Your task to perform on an android device: turn off priority inbox in the gmail app Image 0: 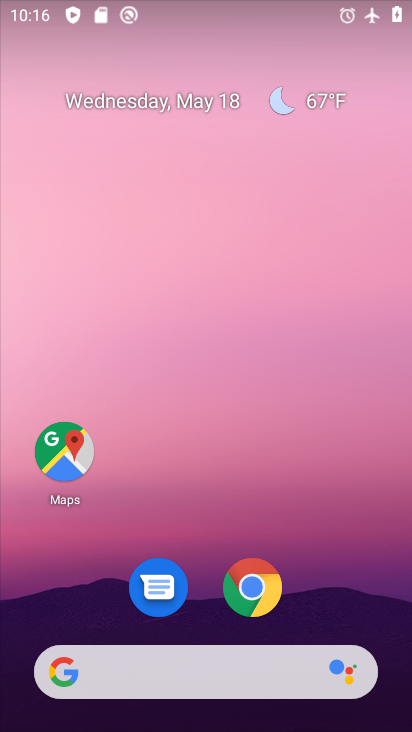
Step 0: drag from (360, 607) to (320, 314)
Your task to perform on an android device: turn off priority inbox in the gmail app Image 1: 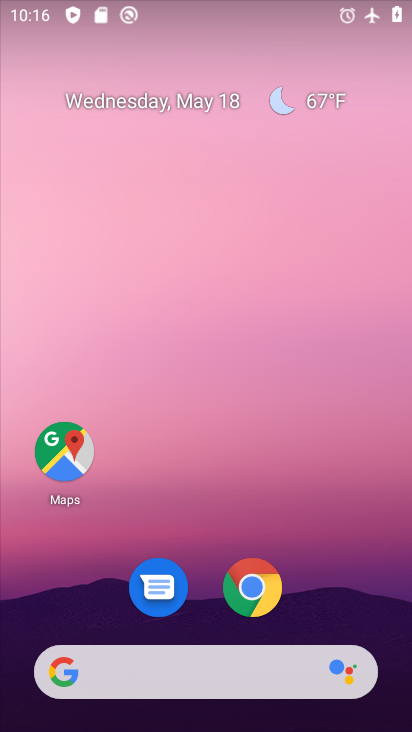
Step 1: drag from (337, 603) to (337, 160)
Your task to perform on an android device: turn off priority inbox in the gmail app Image 2: 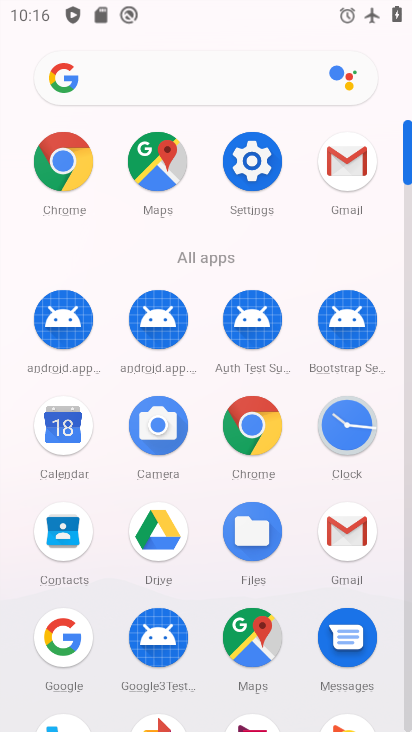
Step 2: click (348, 166)
Your task to perform on an android device: turn off priority inbox in the gmail app Image 3: 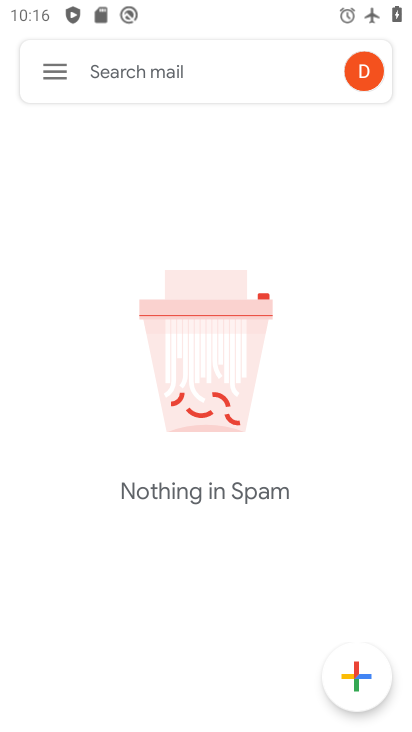
Step 3: click (52, 76)
Your task to perform on an android device: turn off priority inbox in the gmail app Image 4: 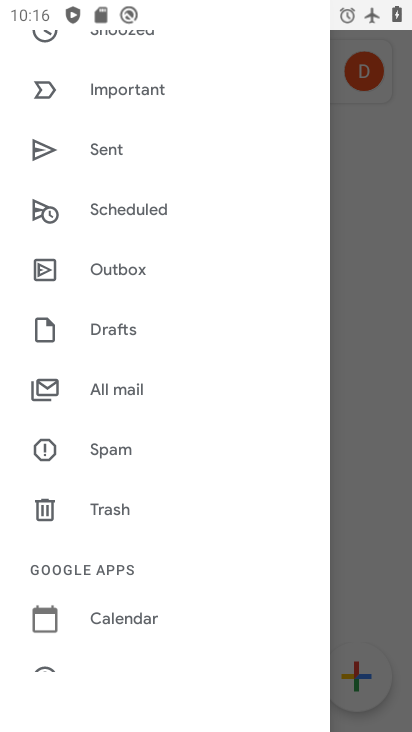
Step 4: drag from (183, 484) to (180, 255)
Your task to perform on an android device: turn off priority inbox in the gmail app Image 5: 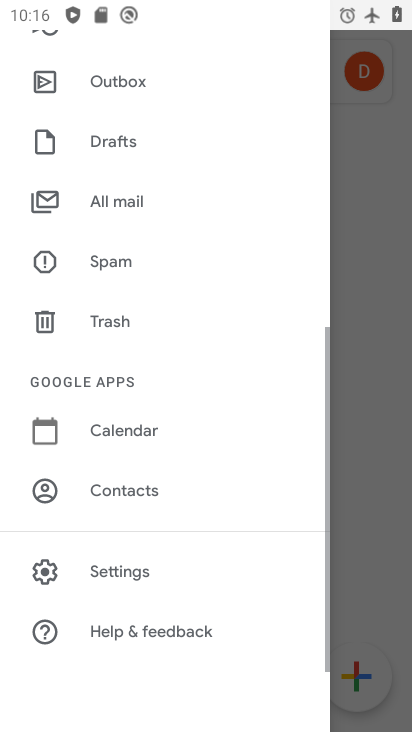
Step 5: click (98, 569)
Your task to perform on an android device: turn off priority inbox in the gmail app Image 6: 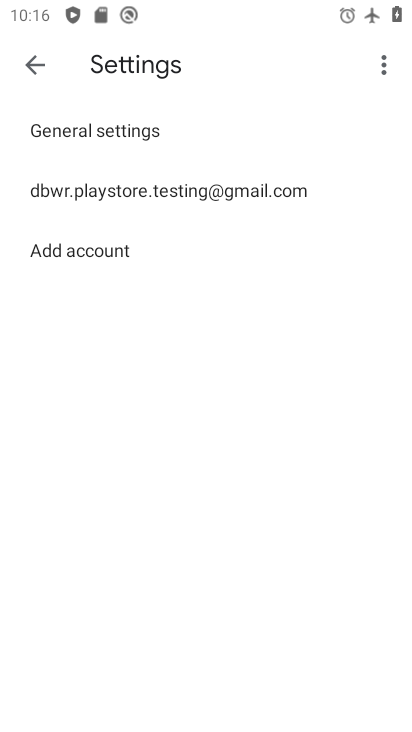
Step 6: click (387, 53)
Your task to perform on an android device: turn off priority inbox in the gmail app Image 7: 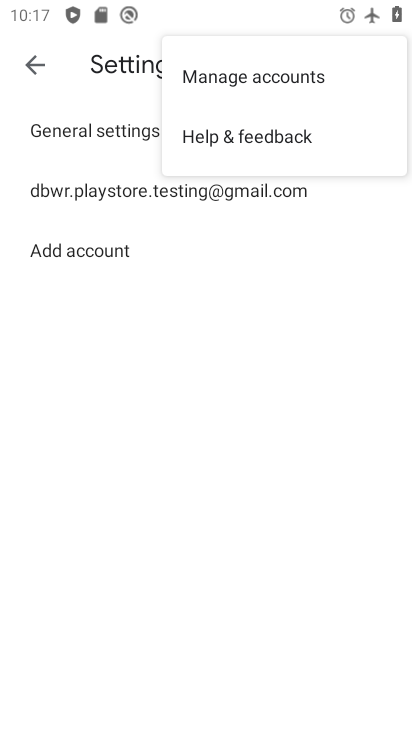
Step 7: press back button
Your task to perform on an android device: turn off priority inbox in the gmail app Image 8: 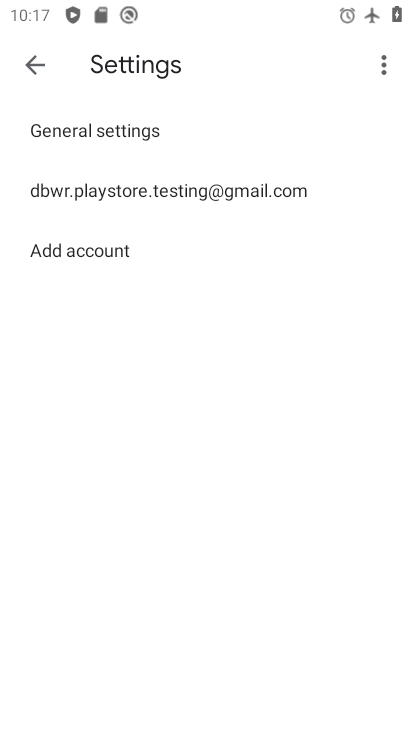
Step 8: press back button
Your task to perform on an android device: turn off priority inbox in the gmail app Image 9: 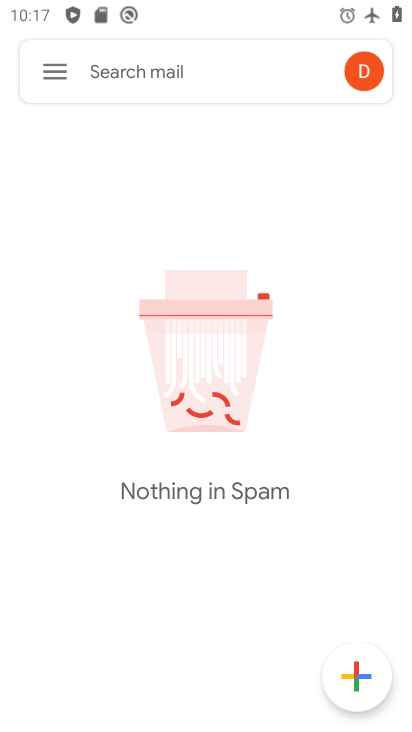
Step 9: click (56, 74)
Your task to perform on an android device: turn off priority inbox in the gmail app Image 10: 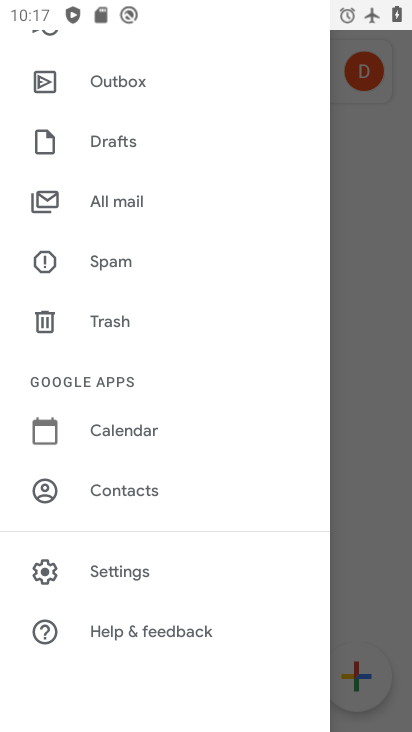
Step 10: drag from (193, 176) to (196, 549)
Your task to perform on an android device: turn off priority inbox in the gmail app Image 11: 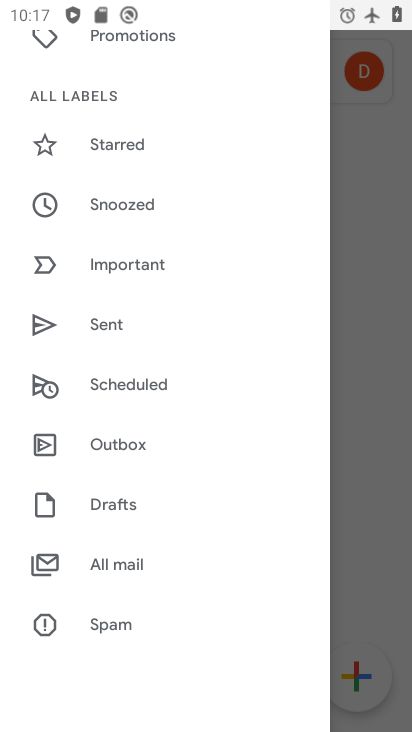
Step 11: drag from (206, 238) to (244, 546)
Your task to perform on an android device: turn off priority inbox in the gmail app Image 12: 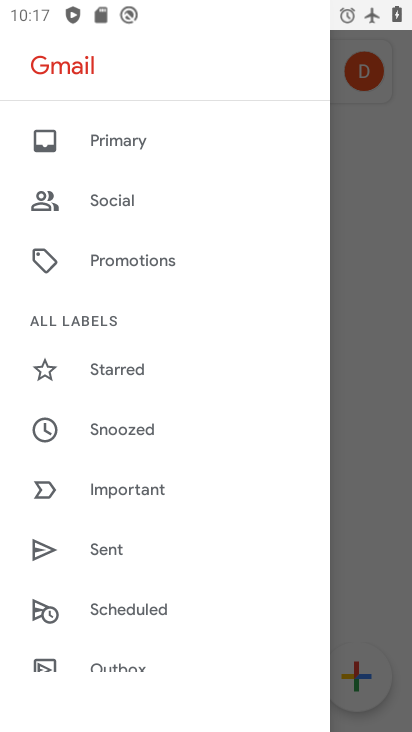
Step 12: drag from (182, 499) to (176, 214)
Your task to perform on an android device: turn off priority inbox in the gmail app Image 13: 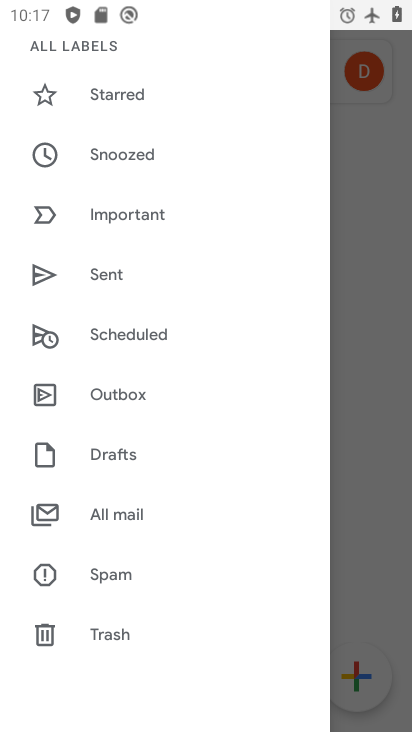
Step 13: drag from (158, 531) to (182, 275)
Your task to perform on an android device: turn off priority inbox in the gmail app Image 14: 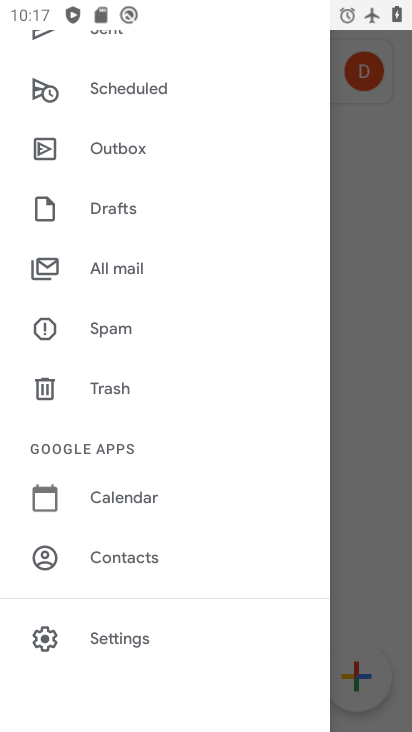
Step 14: drag from (160, 557) to (179, 316)
Your task to perform on an android device: turn off priority inbox in the gmail app Image 15: 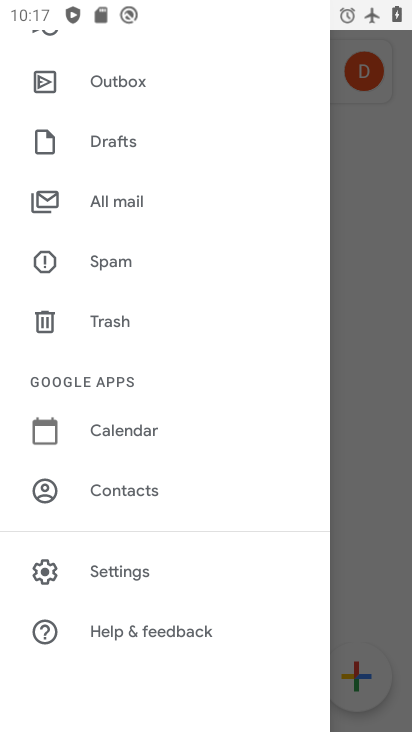
Step 15: click (179, 567)
Your task to perform on an android device: turn off priority inbox in the gmail app Image 16: 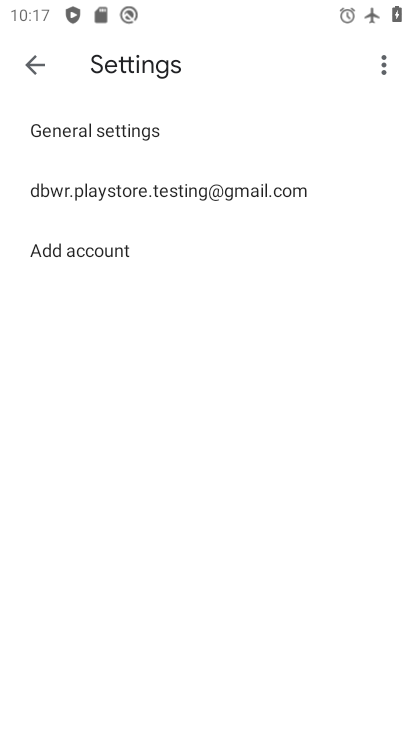
Step 16: task complete